Your task to perform on an android device: move a message to another label in the gmail app Image 0: 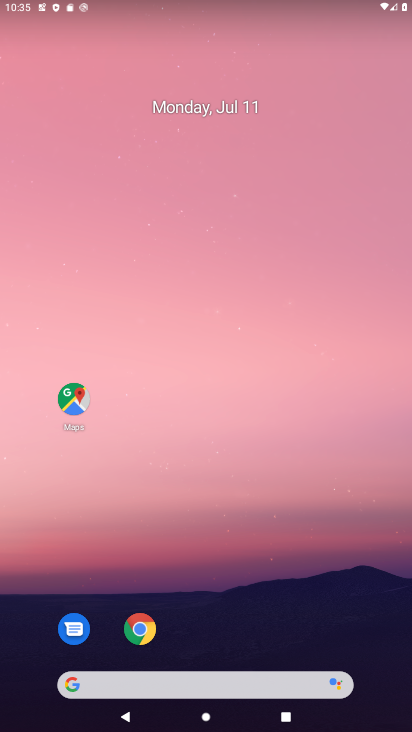
Step 0: drag from (241, 647) to (241, 177)
Your task to perform on an android device: move a message to another label in the gmail app Image 1: 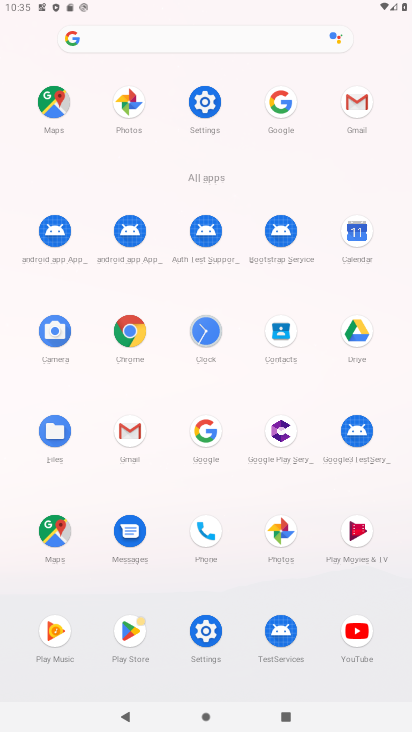
Step 1: click (366, 114)
Your task to perform on an android device: move a message to another label in the gmail app Image 2: 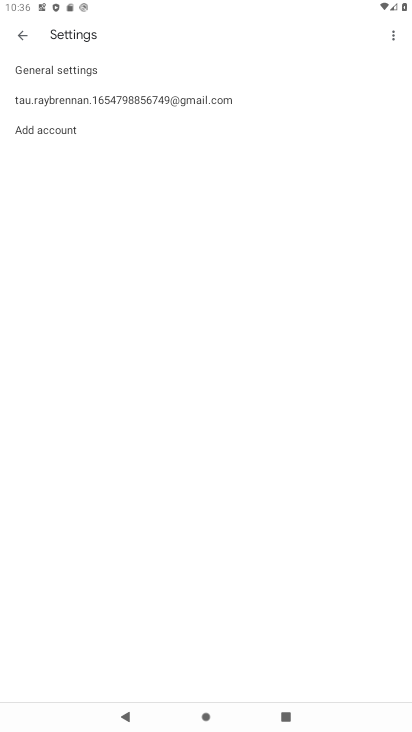
Step 2: click (22, 43)
Your task to perform on an android device: move a message to another label in the gmail app Image 3: 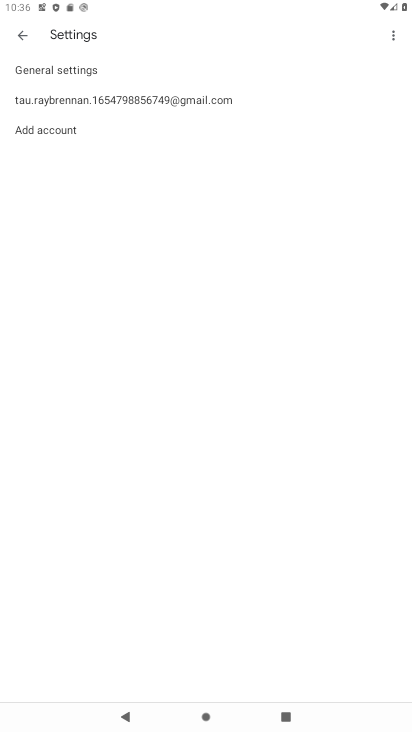
Step 3: click (17, 46)
Your task to perform on an android device: move a message to another label in the gmail app Image 4: 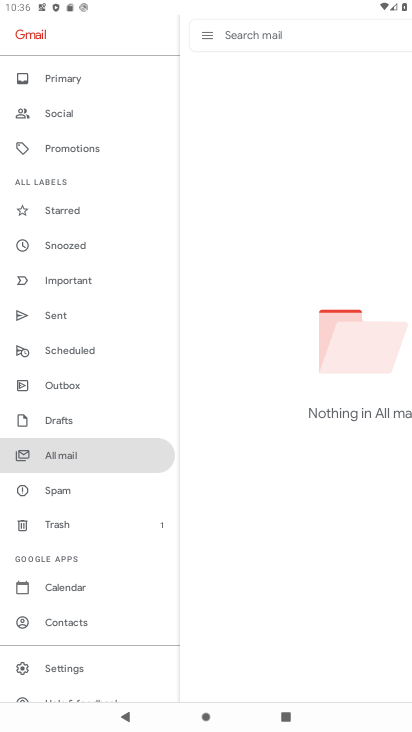
Step 4: click (103, 455)
Your task to perform on an android device: move a message to another label in the gmail app Image 5: 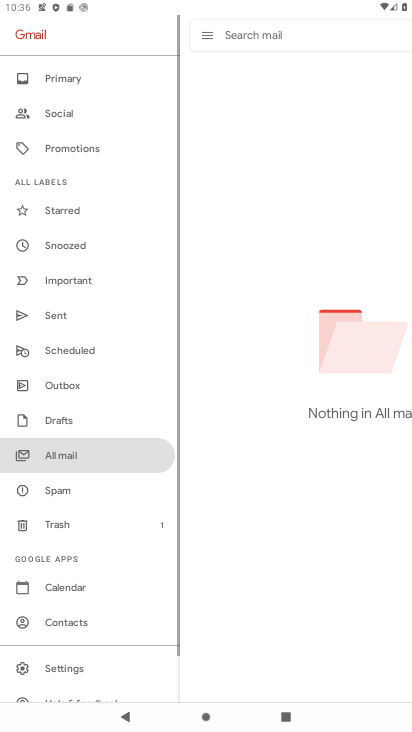
Step 5: task complete